Your task to perform on an android device: Check the news Image 0: 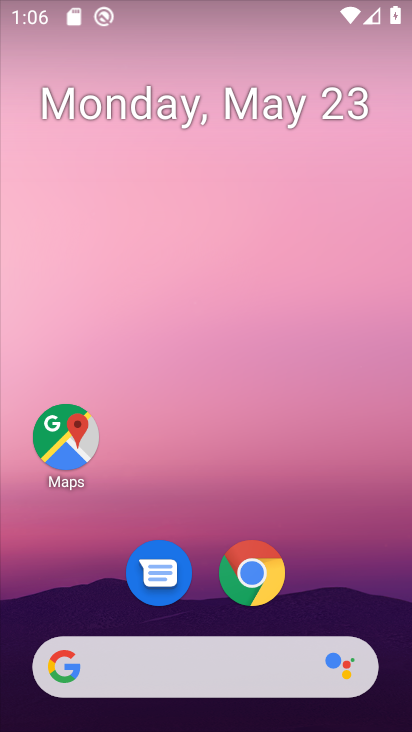
Step 0: click (192, 661)
Your task to perform on an android device: Check the news Image 1: 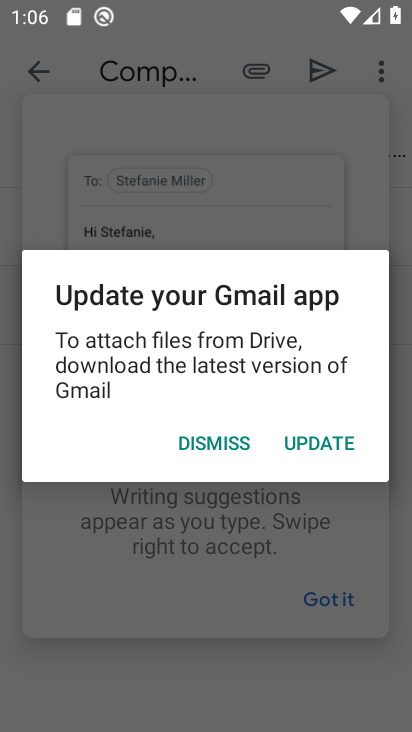
Step 1: press home button
Your task to perform on an android device: Check the news Image 2: 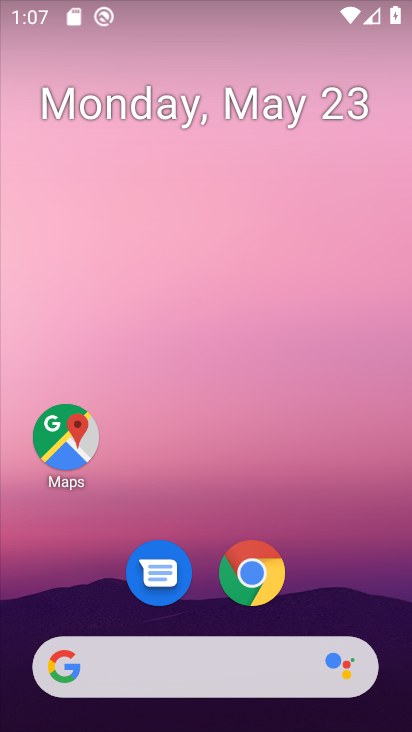
Step 2: click (201, 649)
Your task to perform on an android device: Check the news Image 3: 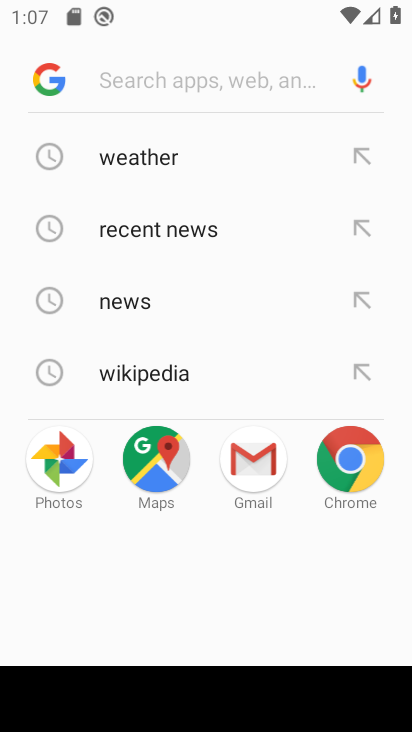
Step 3: click (151, 312)
Your task to perform on an android device: Check the news Image 4: 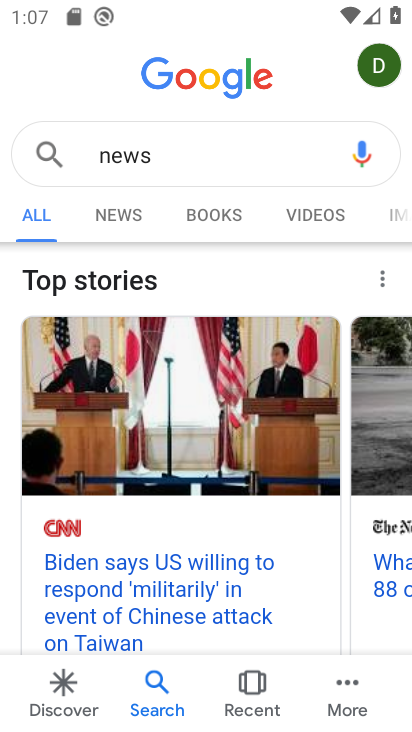
Step 4: click (120, 214)
Your task to perform on an android device: Check the news Image 5: 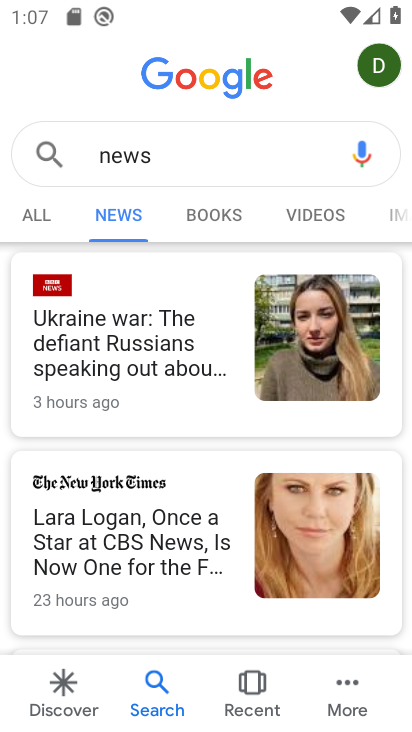
Step 5: task complete